Your task to perform on an android device: Set the phone to "Do not disturb". Image 0: 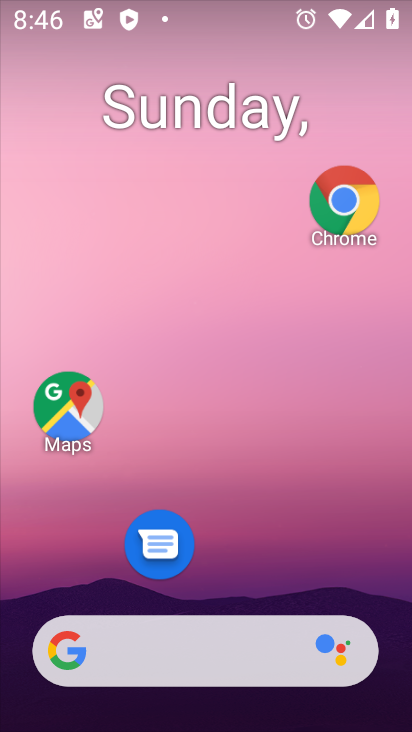
Step 0: drag from (260, 581) to (302, 33)
Your task to perform on an android device: Set the phone to "Do not disturb". Image 1: 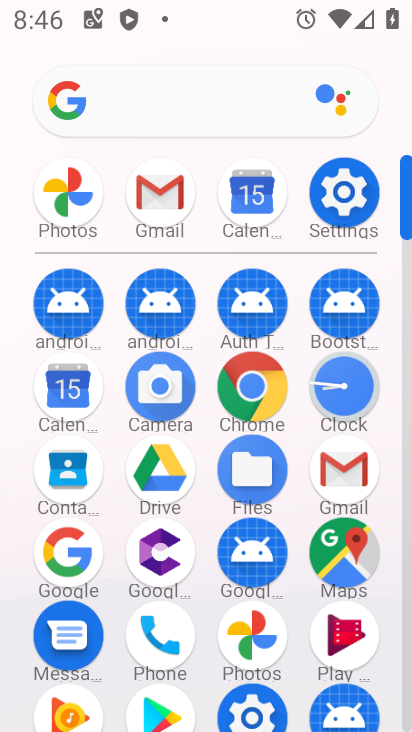
Step 1: click (342, 173)
Your task to perform on an android device: Set the phone to "Do not disturb". Image 2: 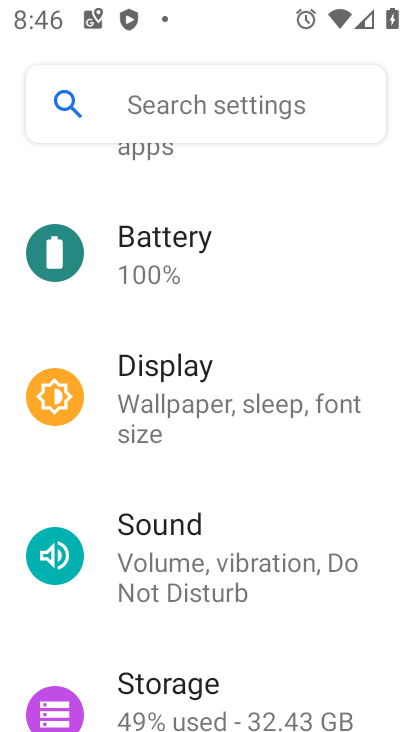
Step 2: drag from (213, 574) to (225, 381)
Your task to perform on an android device: Set the phone to "Do not disturb". Image 3: 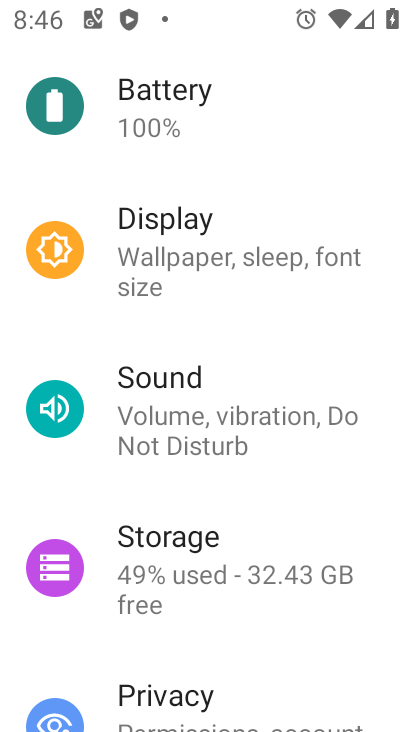
Step 3: click (231, 405)
Your task to perform on an android device: Set the phone to "Do not disturb". Image 4: 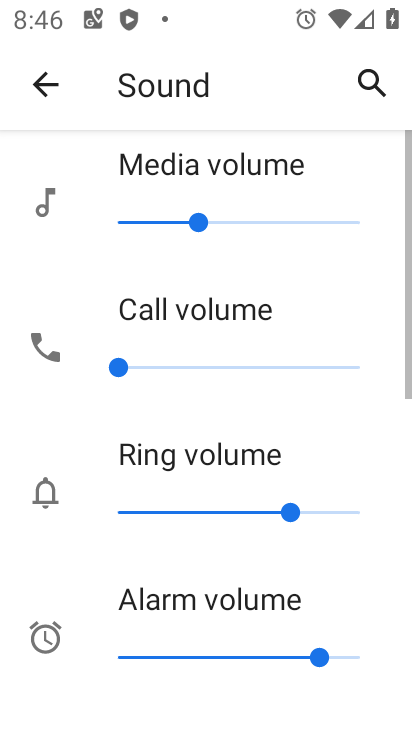
Step 4: drag from (207, 648) to (259, 289)
Your task to perform on an android device: Set the phone to "Do not disturb". Image 5: 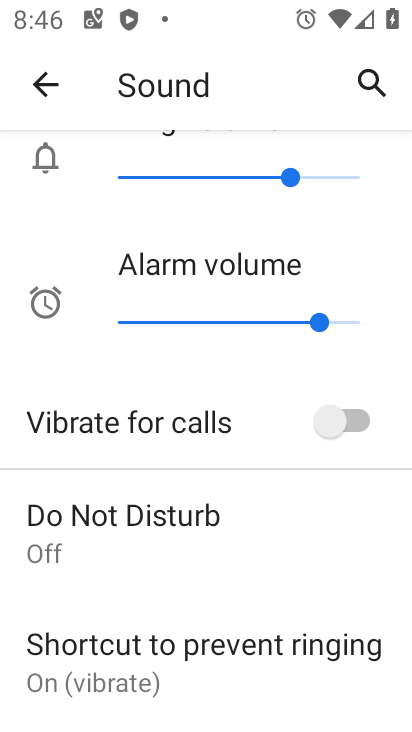
Step 5: click (204, 534)
Your task to perform on an android device: Set the phone to "Do not disturb". Image 6: 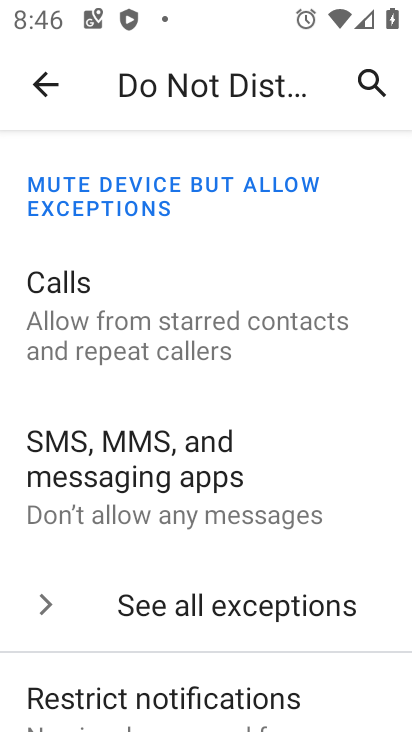
Step 6: drag from (206, 647) to (268, 275)
Your task to perform on an android device: Set the phone to "Do not disturb". Image 7: 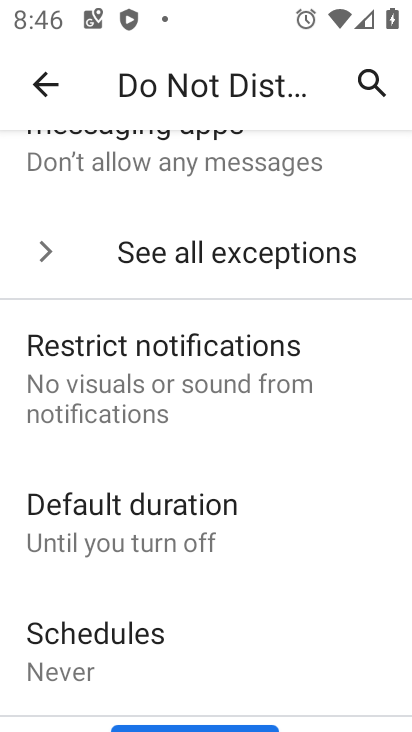
Step 7: drag from (216, 554) to (238, 251)
Your task to perform on an android device: Set the phone to "Do not disturb". Image 8: 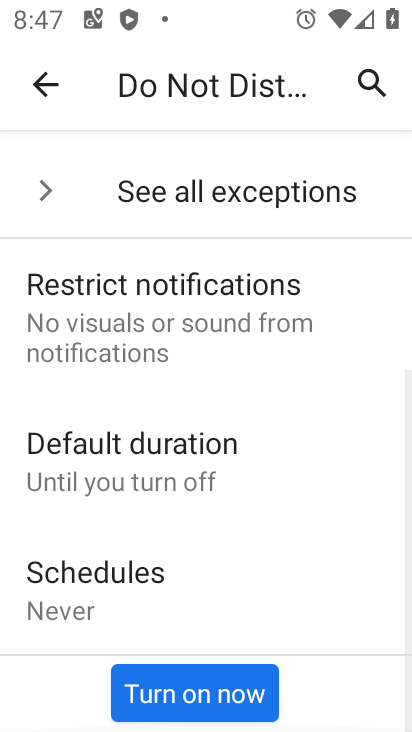
Step 8: click (182, 701)
Your task to perform on an android device: Set the phone to "Do not disturb". Image 9: 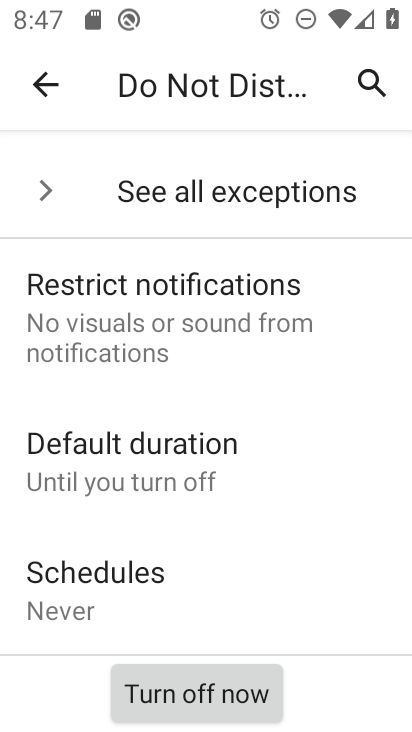
Step 9: task complete